Your task to perform on an android device: turn off translation in the chrome app Image 0: 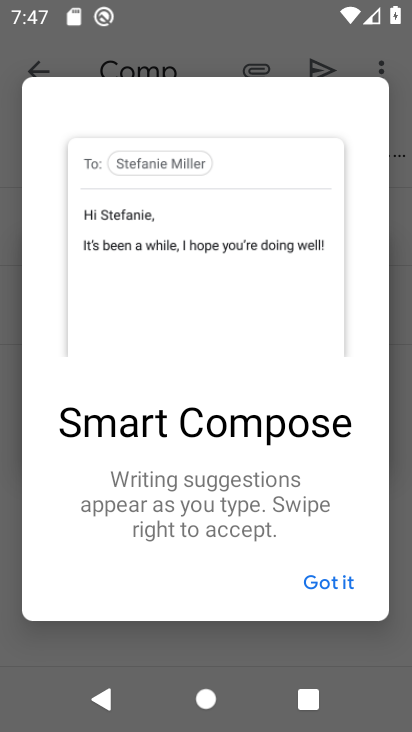
Step 0: press home button
Your task to perform on an android device: turn off translation in the chrome app Image 1: 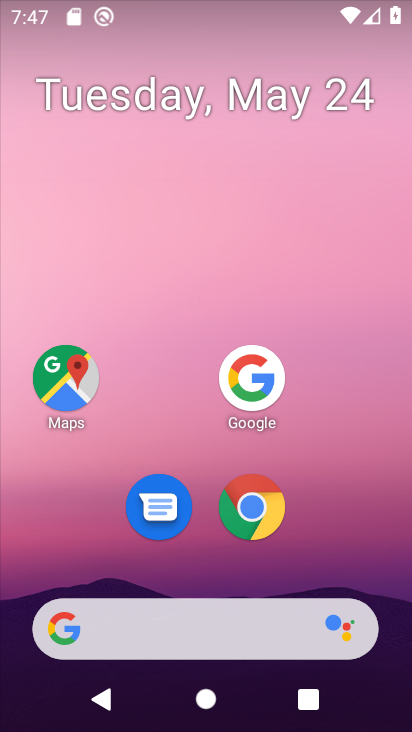
Step 1: click (267, 517)
Your task to perform on an android device: turn off translation in the chrome app Image 2: 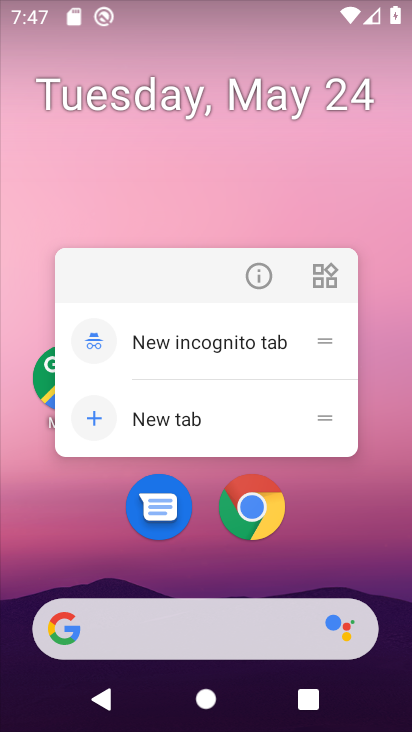
Step 2: click (256, 515)
Your task to perform on an android device: turn off translation in the chrome app Image 3: 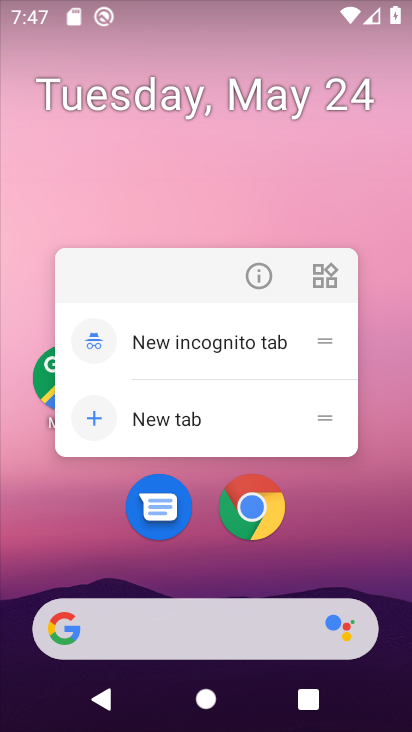
Step 3: click (255, 516)
Your task to perform on an android device: turn off translation in the chrome app Image 4: 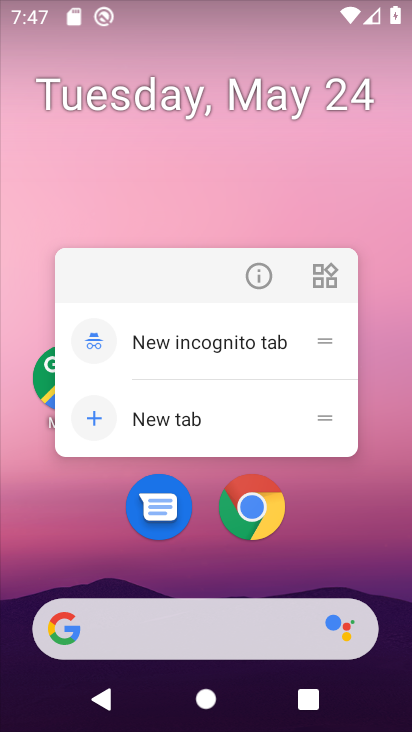
Step 4: click (251, 513)
Your task to perform on an android device: turn off translation in the chrome app Image 5: 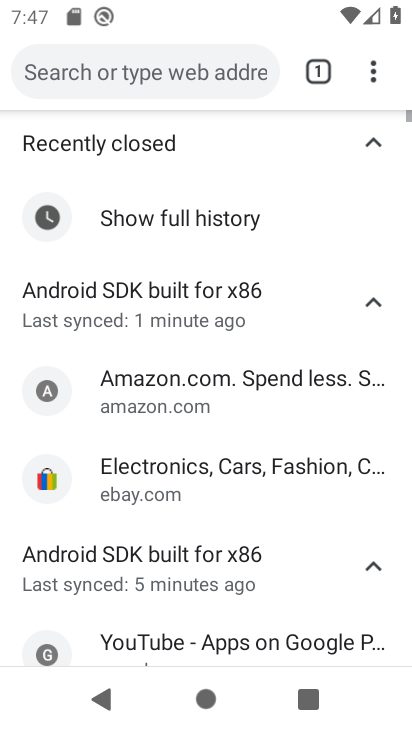
Step 5: drag from (369, 77) to (172, 513)
Your task to perform on an android device: turn off translation in the chrome app Image 6: 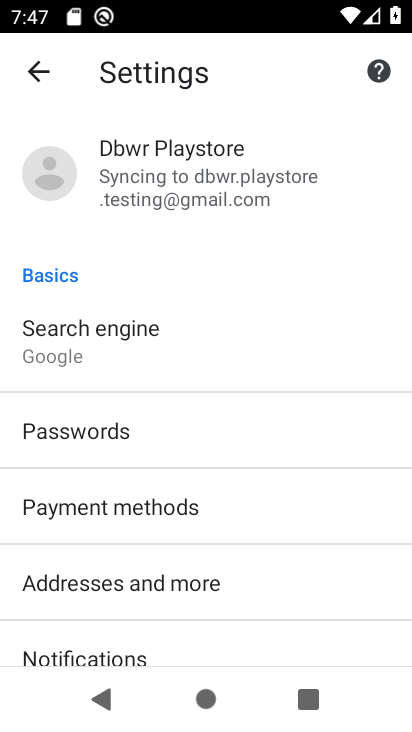
Step 6: drag from (223, 593) to (336, 142)
Your task to perform on an android device: turn off translation in the chrome app Image 7: 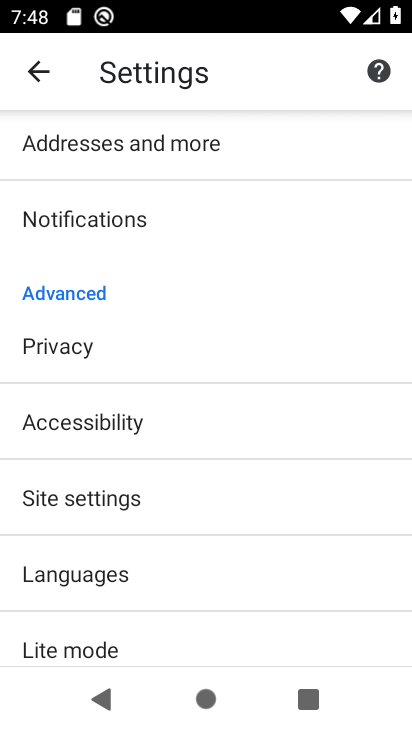
Step 7: click (85, 568)
Your task to perform on an android device: turn off translation in the chrome app Image 8: 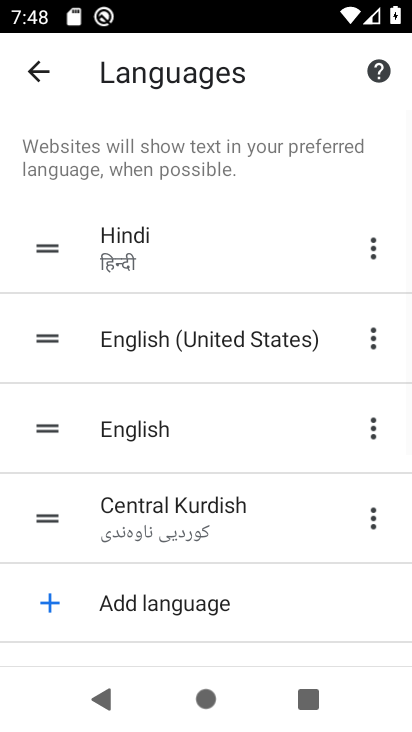
Step 8: drag from (211, 640) to (338, 200)
Your task to perform on an android device: turn off translation in the chrome app Image 9: 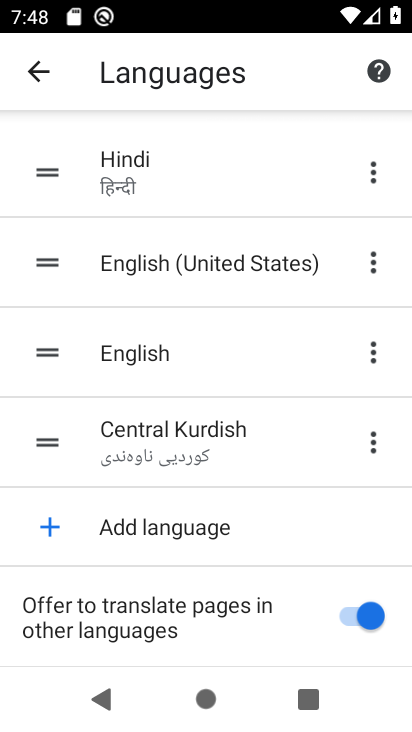
Step 9: click (343, 606)
Your task to perform on an android device: turn off translation in the chrome app Image 10: 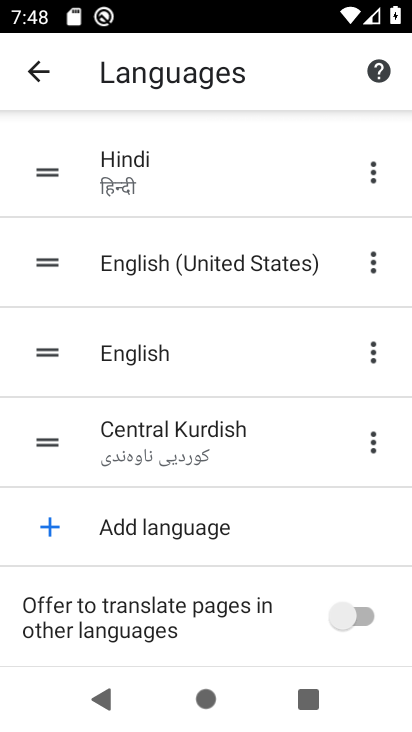
Step 10: task complete